Your task to perform on an android device: Turn off the flashlight Image 0: 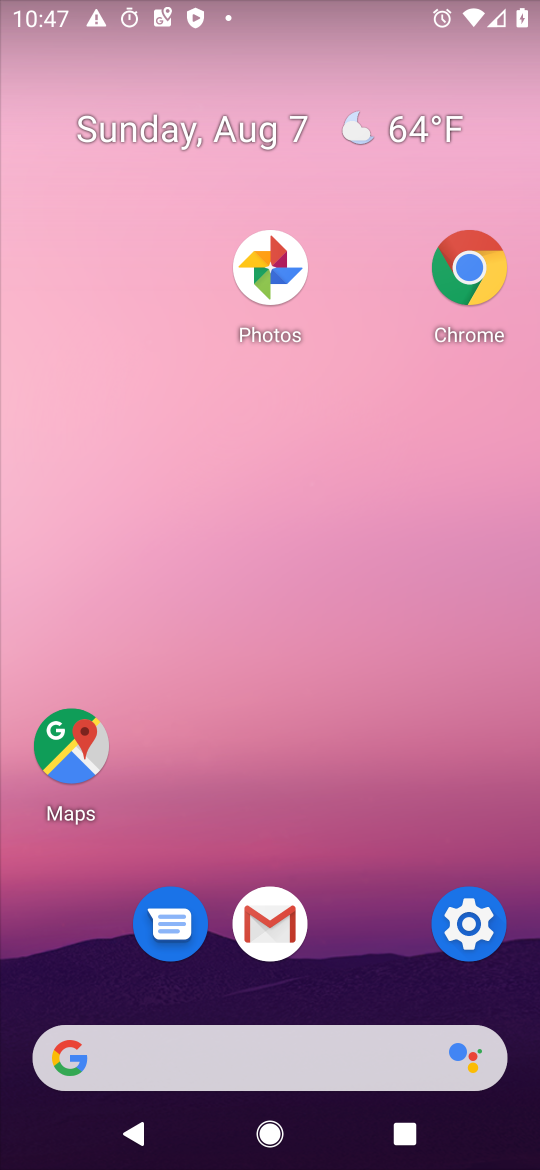
Step 0: press home button
Your task to perform on an android device: Turn off the flashlight Image 1: 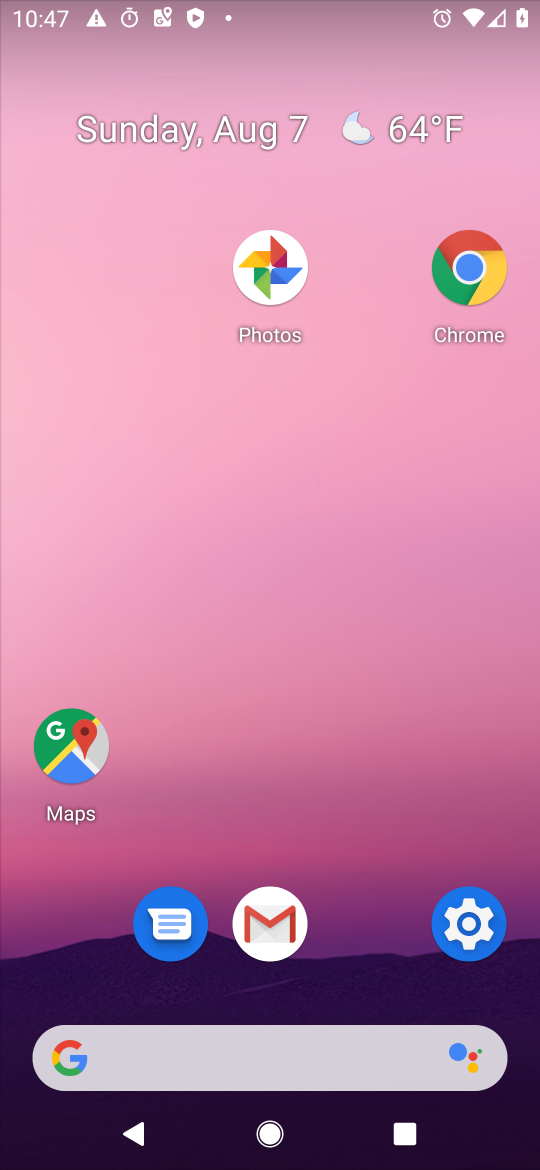
Step 1: click (473, 928)
Your task to perform on an android device: Turn off the flashlight Image 2: 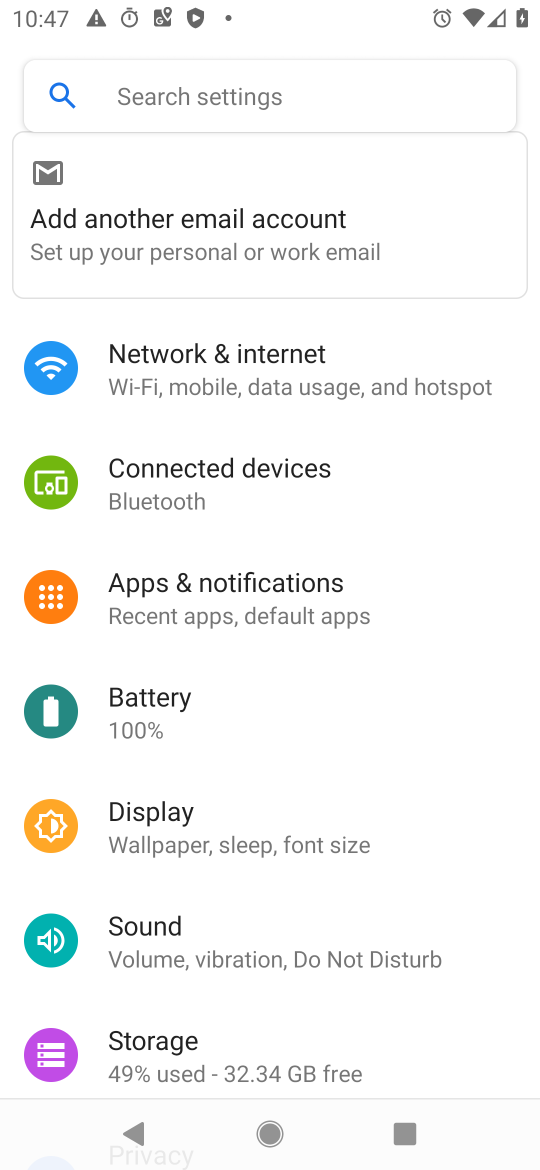
Step 2: click (195, 85)
Your task to perform on an android device: Turn off the flashlight Image 3: 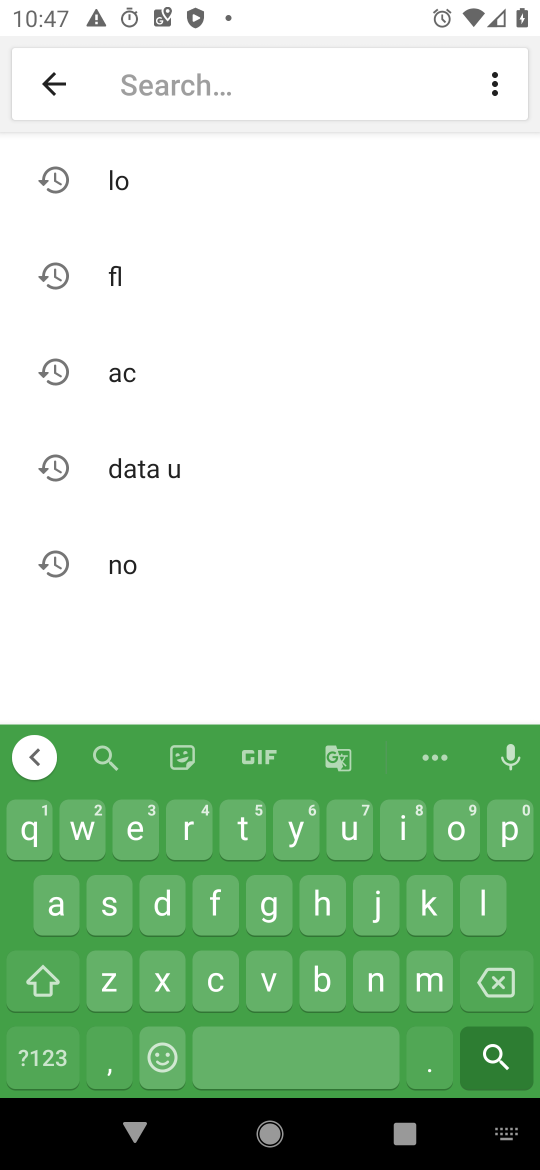
Step 3: click (215, 912)
Your task to perform on an android device: Turn off the flashlight Image 4: 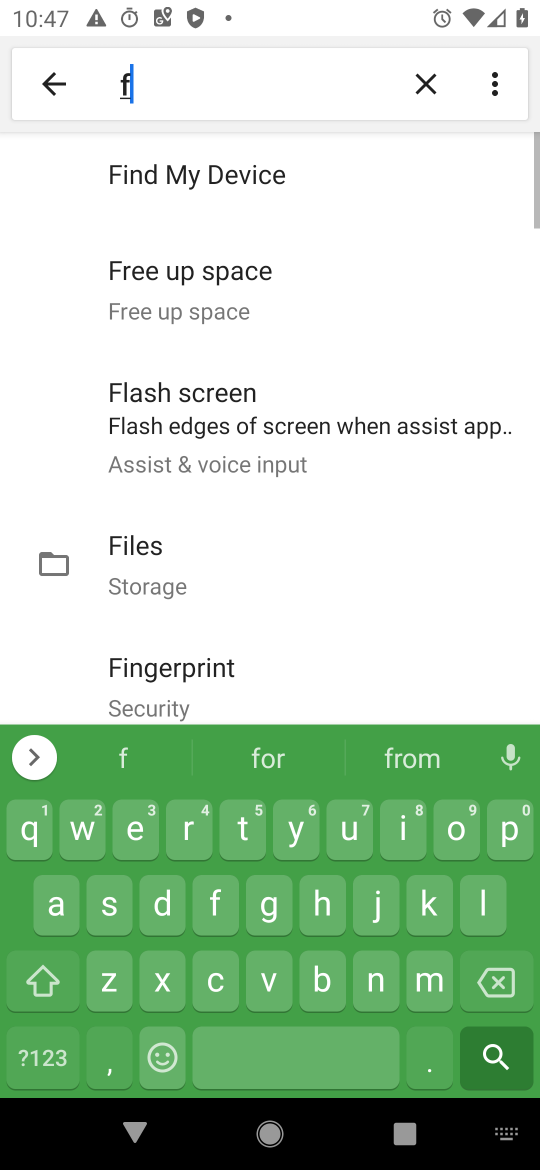
Step 4: click (490, 909)
Your task to perform on an android device: Turn off the flashlight Image 5: 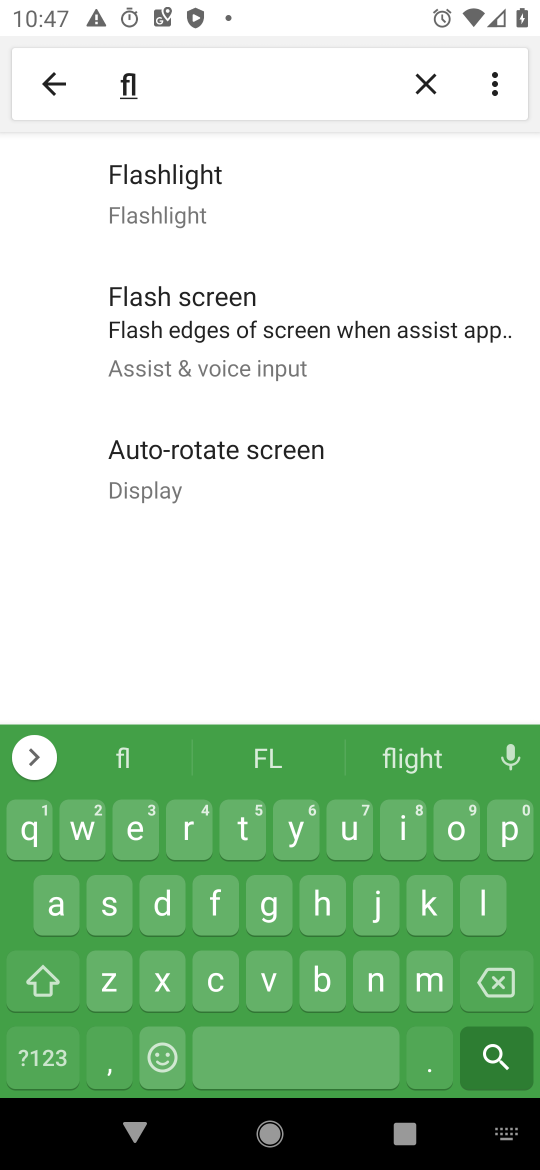
Step 5: click (175, 202)
Your task to perform on an android device: Turn off the flashlight Image 6: 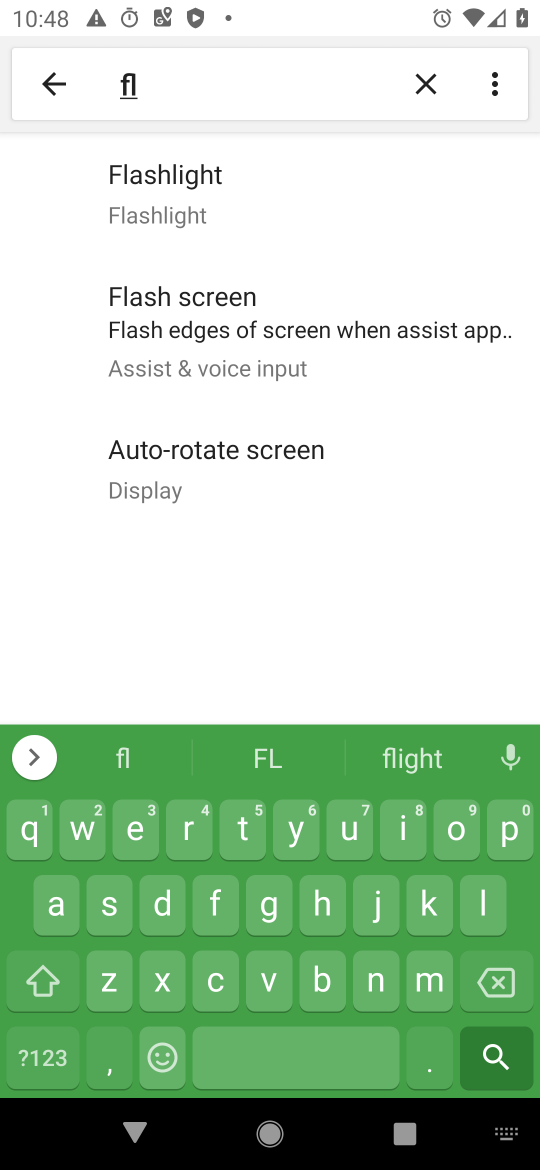
Step 6: task complete